Your task to perform on an android device: Open the stopwatch Image 0: 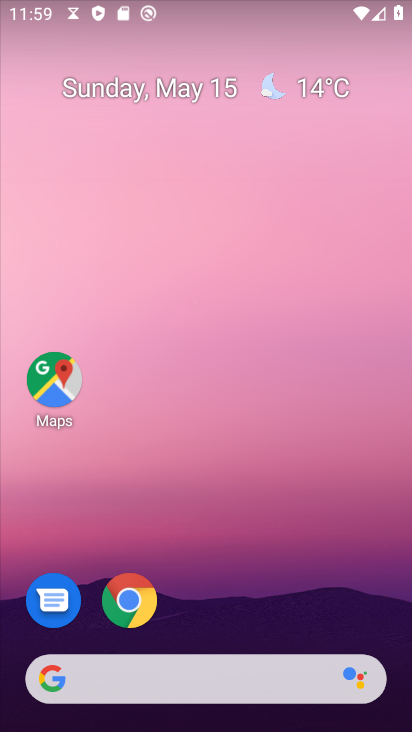
Step 0: drag from (210, 372) to (9, 27)
Your task to perform on an android device: Open the stopwatch Image 1: 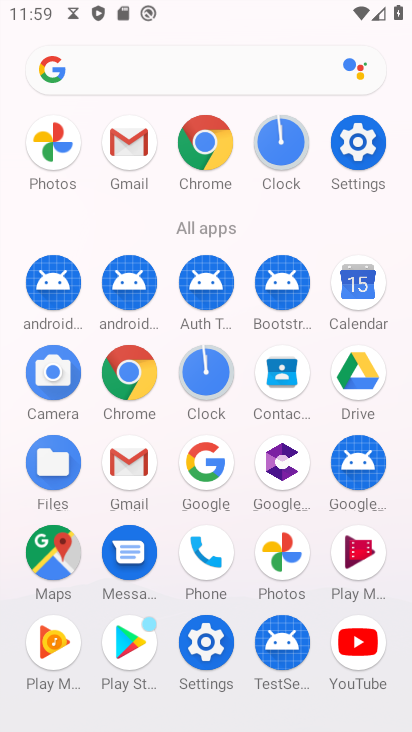
Step 1: drag from (16, 516) to (14, 287)
Your task to perform on an android device: Open the stopwatch Image 2: 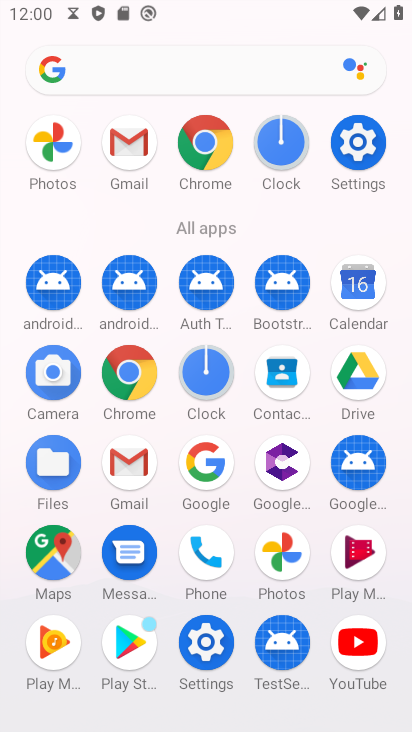
Step 2: click (205, 376)
Your task to perform on an android device: Open the stopwatch Image 3: 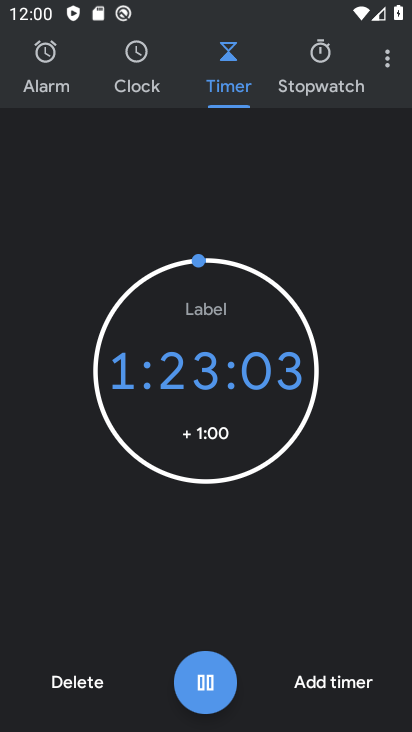
Step 3: click (315, 66)
Your task to perform on an android device: Open the stopwatch Image 4: 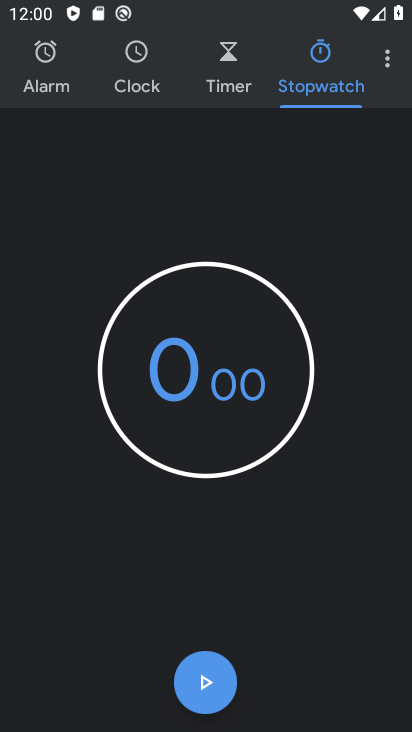
Step 4: task complete